Your task to perform on an android device: open a bookmark in the chrome app Image 0: 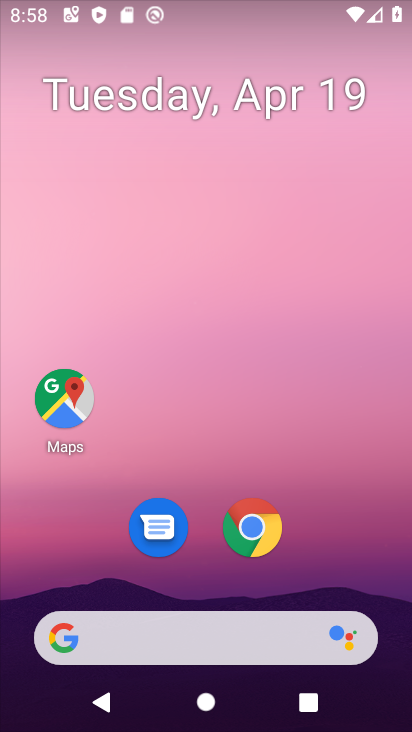
Step 0: drag from (294, 538) to (294, 101)
Your task to perform on an android device: open a bookmark in the chrome app Image 1: 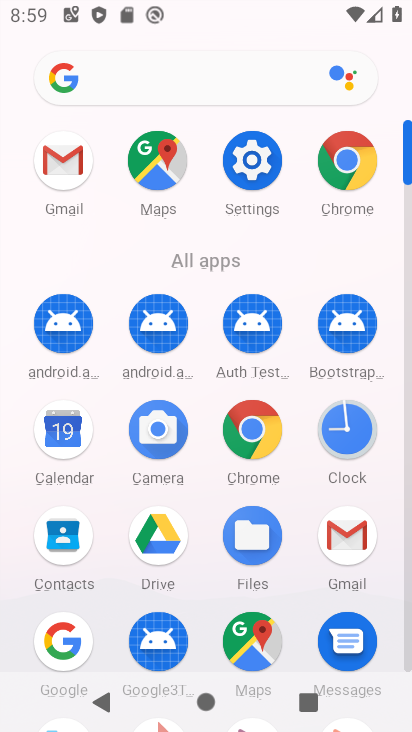
Step 1: click (350, 168)
Your task to perform on an android device: open a bookmark in the chrome app Image 2: 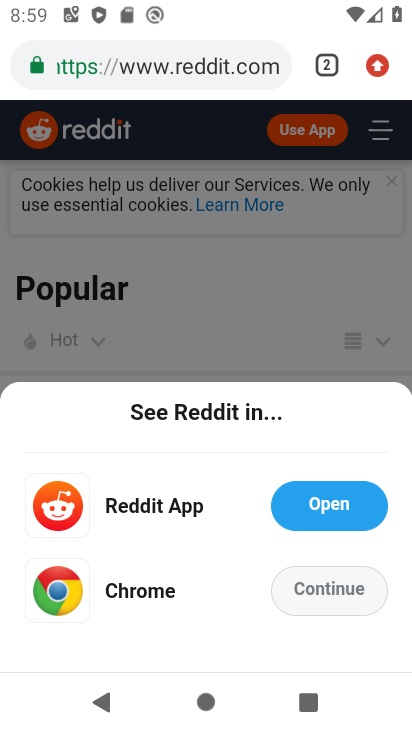
Step 2: click (383, 69)
Your task to perform on an android device: open a bookmark in the chrome app Image 3: 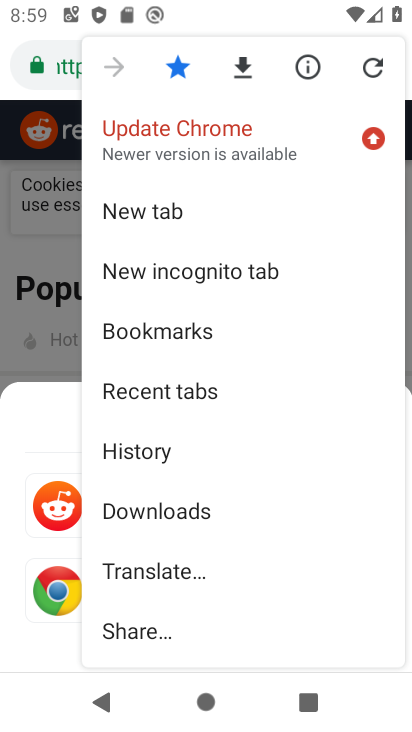
Step 3: click (195, 322)
Your task to perform on an android device: open a bookmark in the chrome app Image 4: 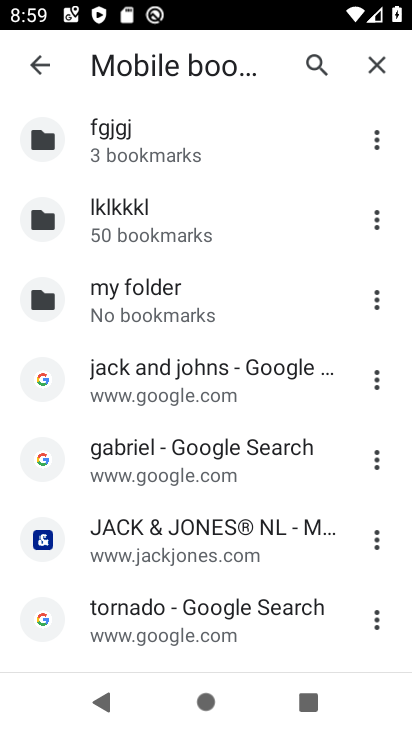
Step 4: task complete